Your task to perform on an android device: check data usage Image 0: 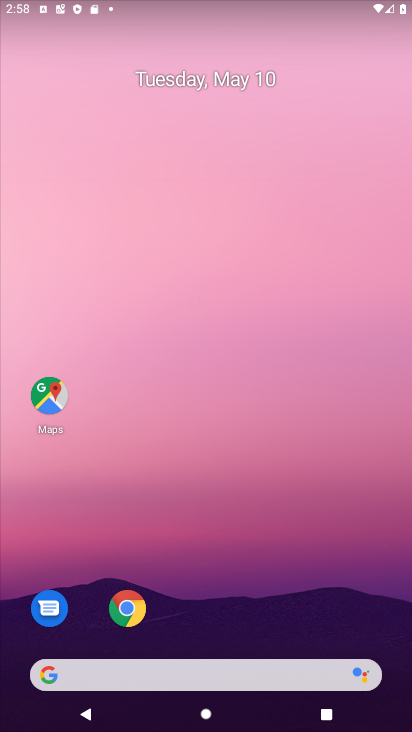
Step 0: drag from (387, 651) to (275, 100)
Your task to perform on an android device: check data usage Image 1: 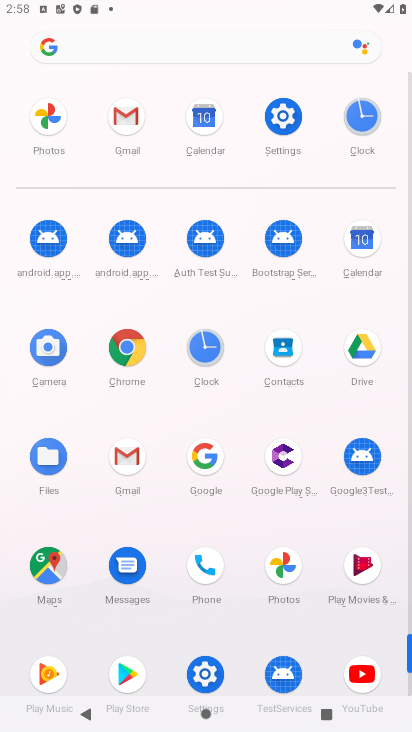
Step 1: click (207, 677)
Your task to perform on an android device: check data usage Image 2: 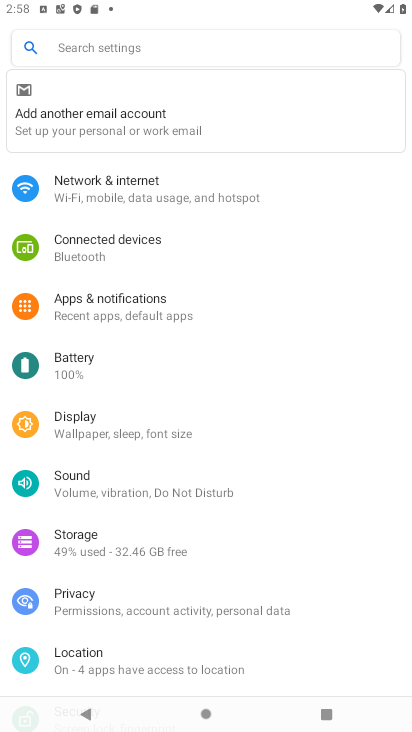
Step 2: click (92, 181)
Your task to perform on an android device: check data usage Image 3: 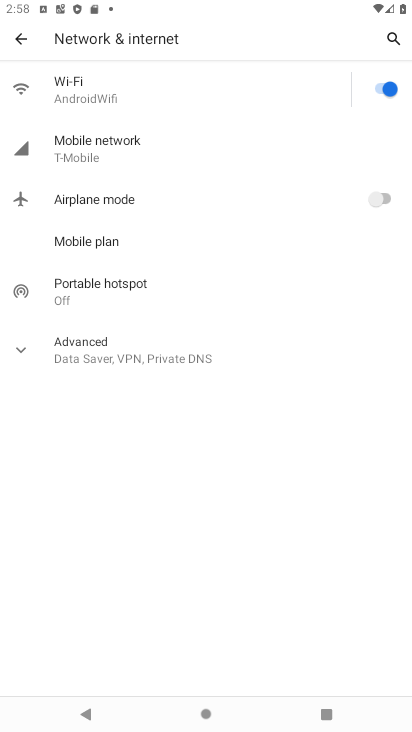
Step 3: click (74, 145)
Your task to perform on an android device: check data usage Image 4: 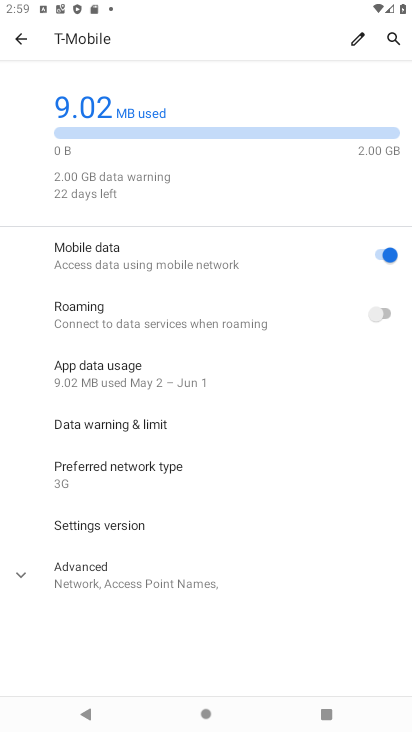
Step 4: task complete